Your task to perform on an android device: Open the stopwatch Image 0: 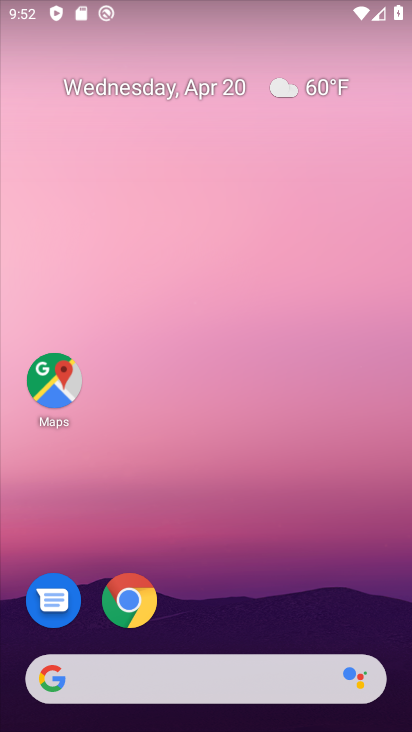
Step 0: drag from (233, 588) to (214, 9)
Your task to perform on an android device: Open the stopwatch Image 1: 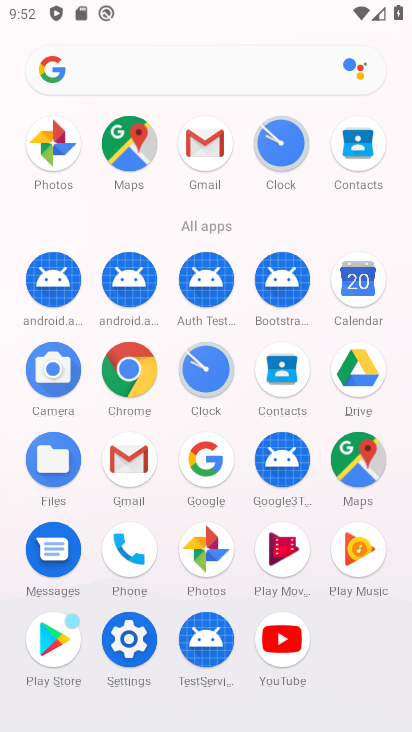
Step 1: click (209, 379)
Your task to perform on an android device: Open the stopwatch Image 2: 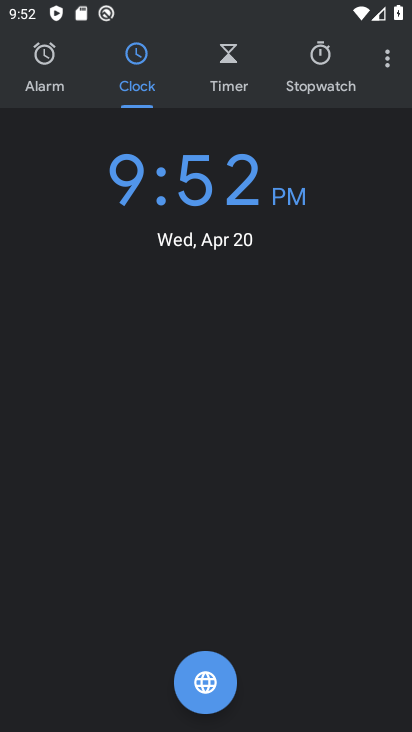
Step 2: click (317, 53)
Your task to perform on an android device: Open the stopwatch Image 3: 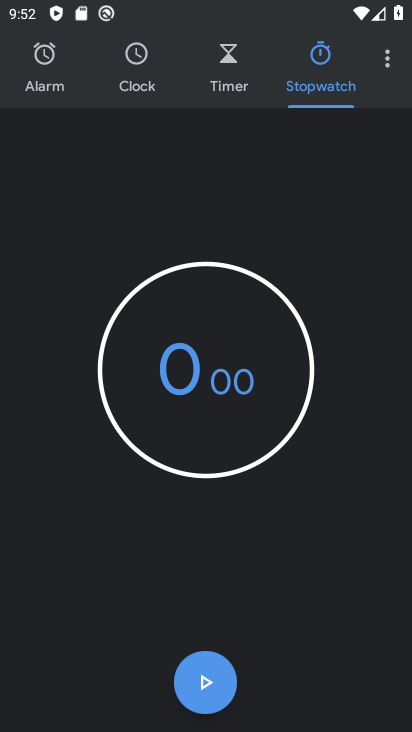
Step 3: task complete